Your task to perform on an android device: Show me popular games on the Play Store Image 0: 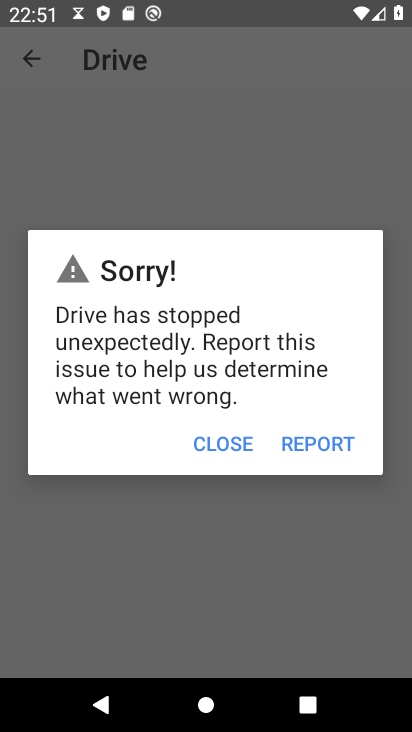
Step 0: press home button
Your task to perform on an android device: Show me popular games on the Play Store Image 1: 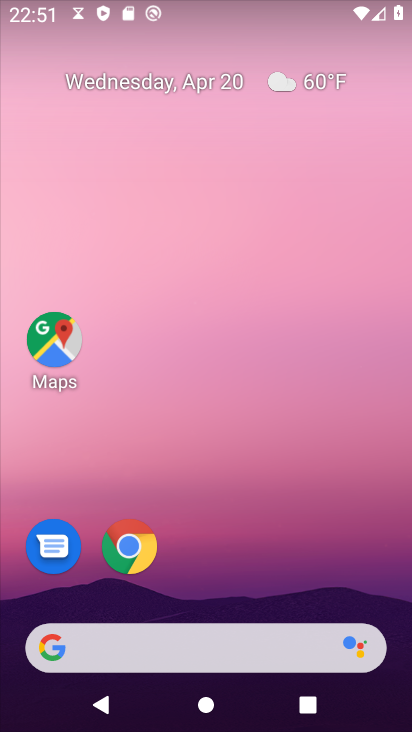
Step 1: drag from (212, 597) to (202, 85)
Your task to perform on an android device: Show me popular games on the Play Store Image 2: 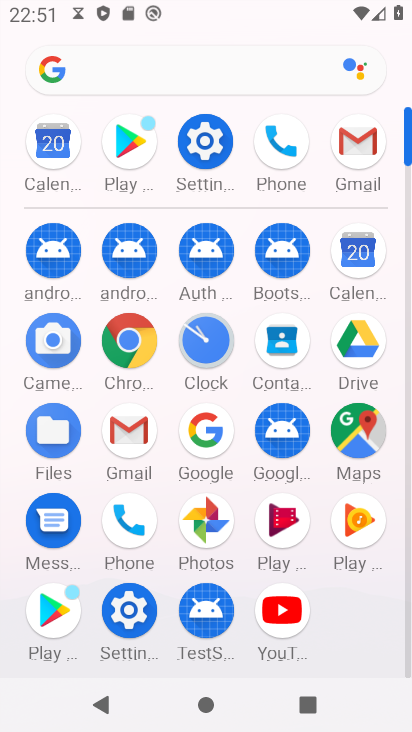
Step 2: click (51, 611)
Your task to perform on an android device: Show me popular games on the Play Store Image 3: 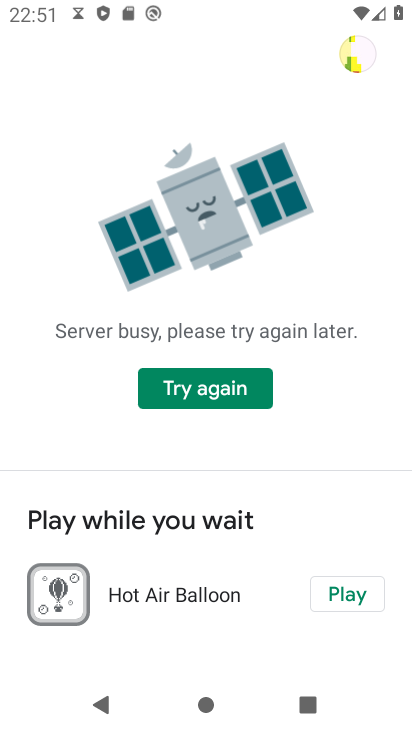
Step 3: click (202, 396)
Your task to perform on an android device: Show me popular games on the Play Store Image 4: 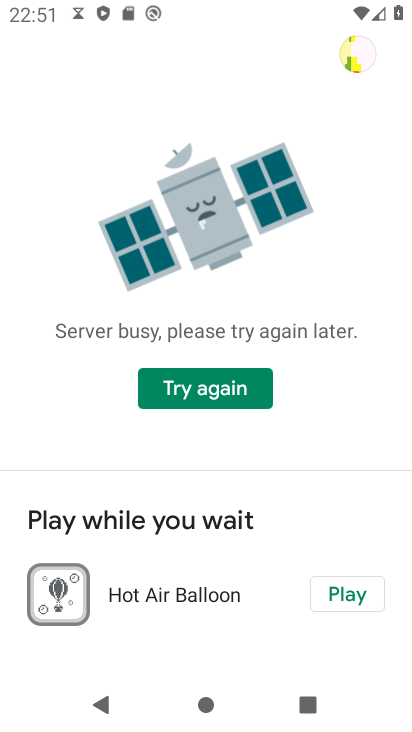
Step 4: task complete